Your task to perform on an android device: Go to accessibility settings Image 0: 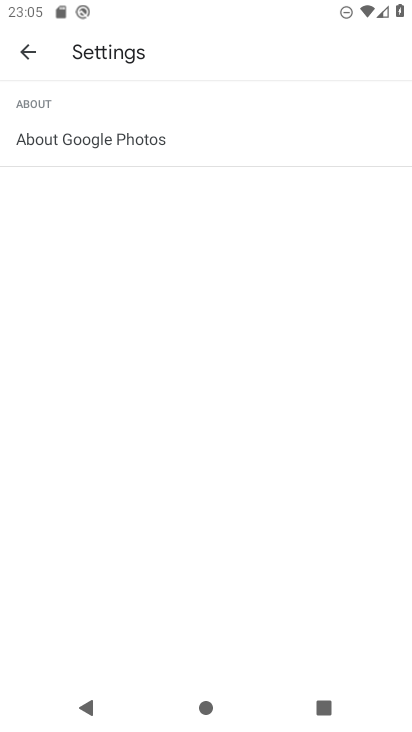
Step 0: drag from (285, 582) to (258, 276)
Your task to perform on an android device: Go to accessibility settings Image 1: 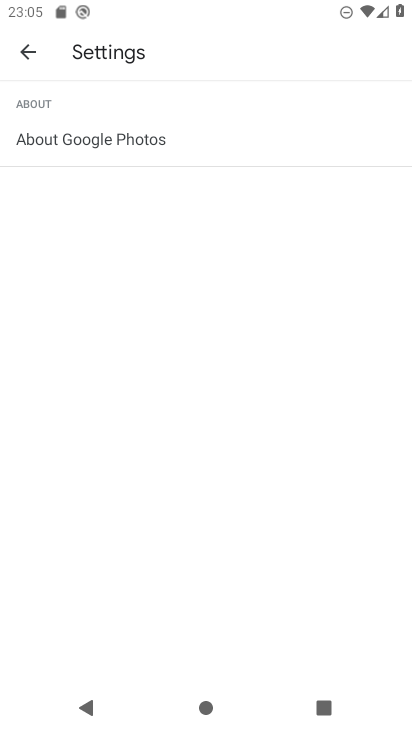
Step 1: drag from (333, 630) to (309, 440)
Your task to perform on an android device: Go to accessibility settings Image 2: 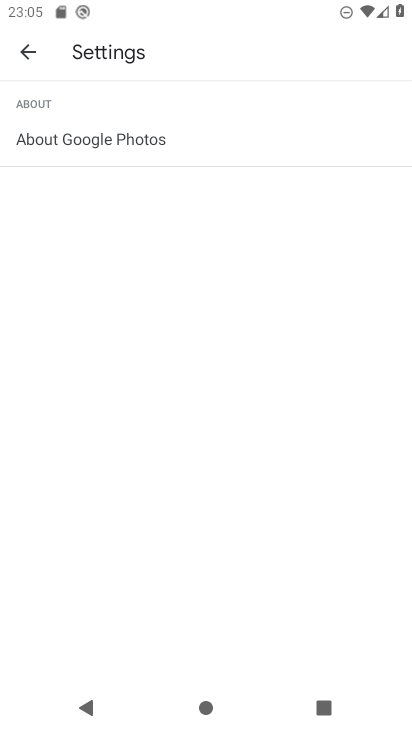
Step 2: press home button
Your task to perform on an android device: Go to accessibility settings Image 3: 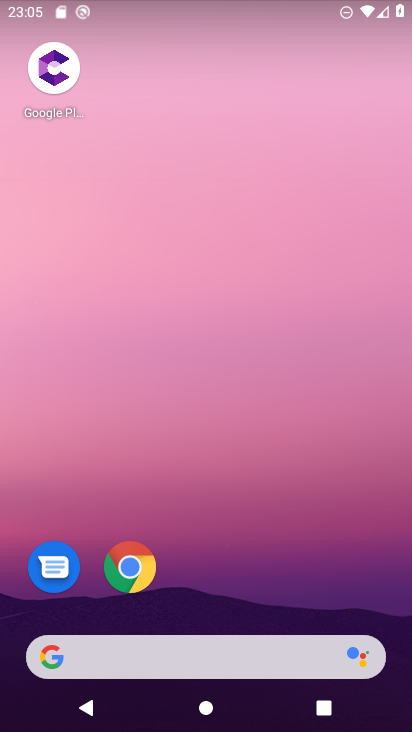
Step 3: drag from (338, 541) to (231, 0)
Your task to perform on an android device: Go to accessibility settings Image 4: 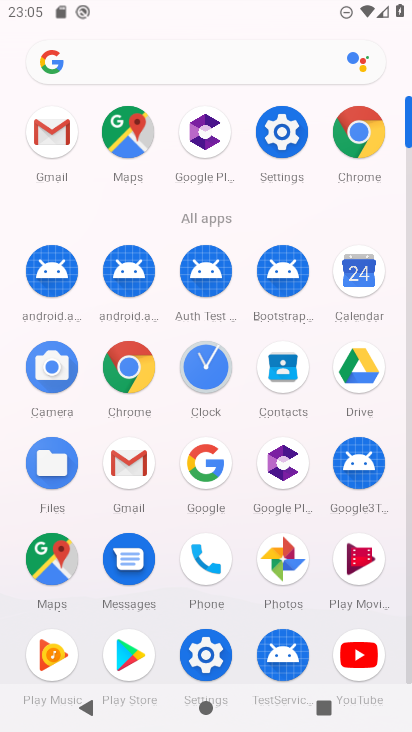
Step 4: click (214, 643)
Your task to perform on an android device: Go to accessibility settings Image 5: 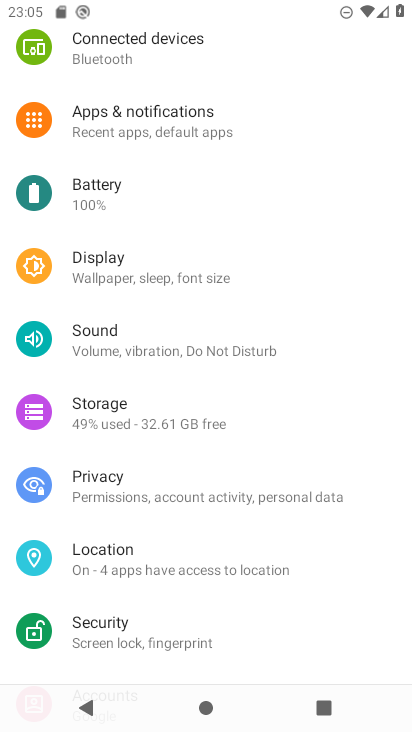
Step 5: drag from (224, 627) to (199, 237)
Your task to perform on an android device: Go to accessibility settings Image 6: 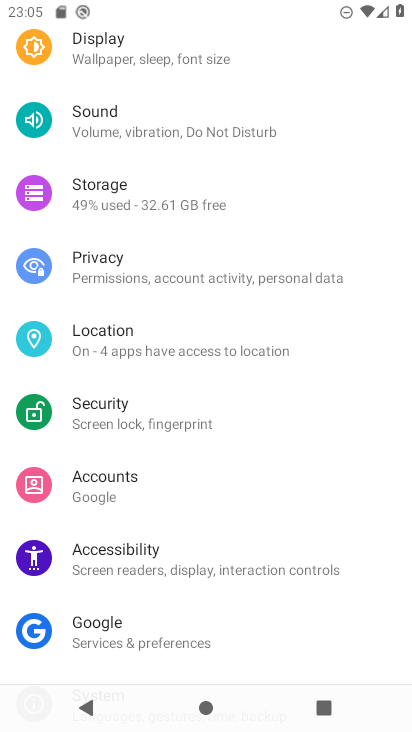
Step 6: click (196, 568)
Your task to perform on an android device: Go to accessibility settings Image 7: 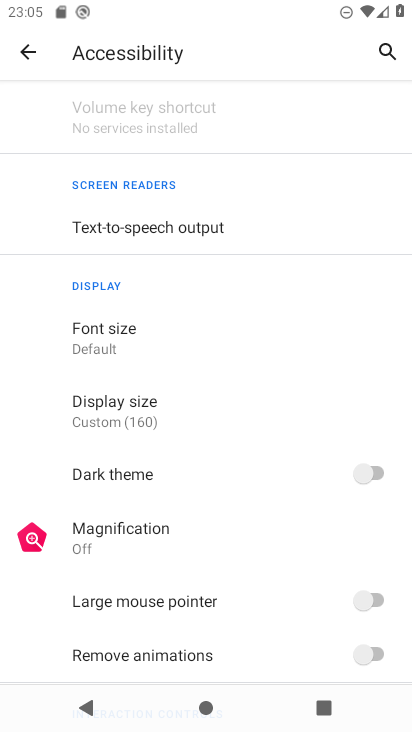
Step 7: task complete